Your task to perform on an android device: turn on bluetooth scan Image 0: 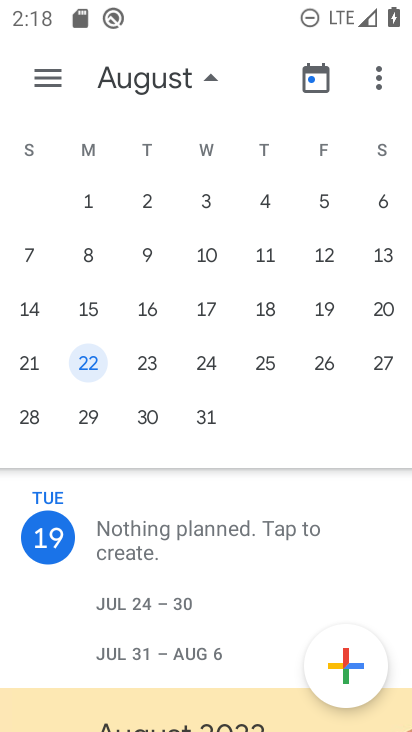
Step 0: press home button
Your task to perform on an android device: turn on bluetooth scan Image 1: 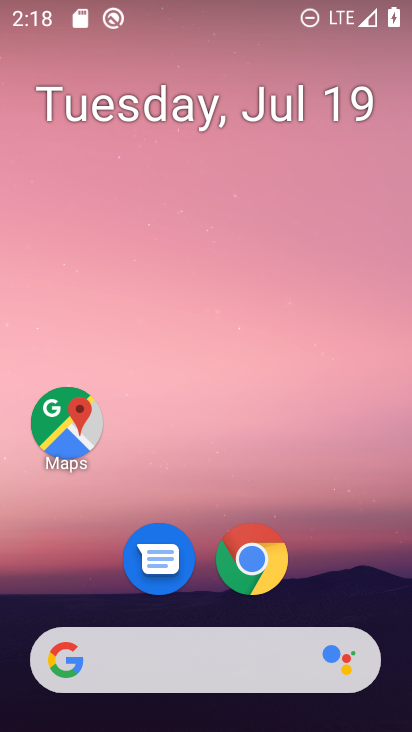
Step 1: drag from (151, 666) to (181, 74)
Your task to perform on an android device: turn on bluetooth scan Image 2: 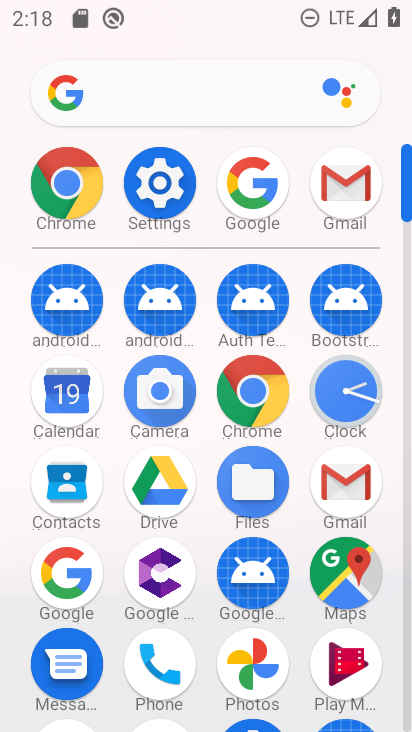
Step 2: click (175, 195)
Your task to perform on an android device: turn on bluetooth scan Image 3: 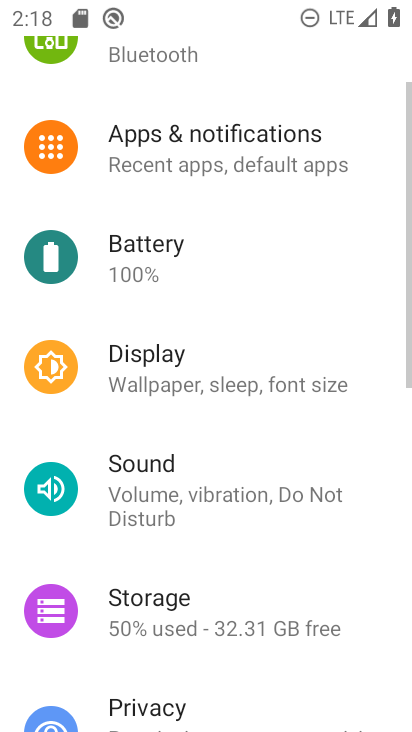
Step 3: drag from (185, 213) to (142, 545)
Your task to perform on an android device: turn on bluetooth scan Image 4: 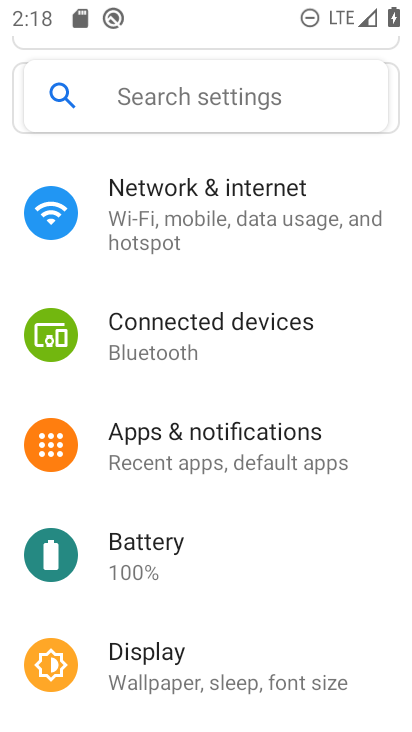
Step 4: click (181, 356)
Your task to perform on an android device: turn on bluetooth scan Image 5: 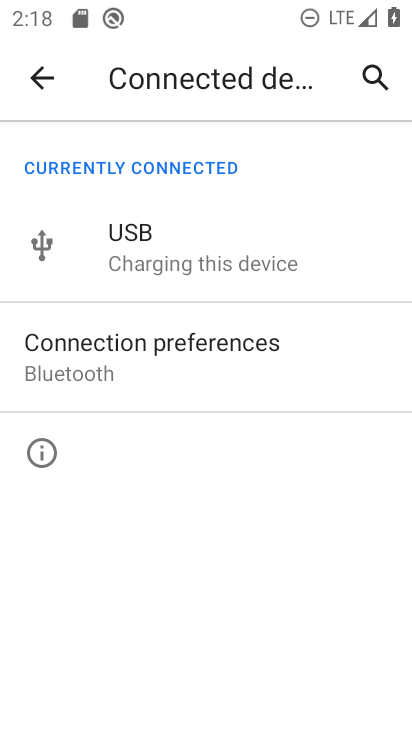
Step 5: click (182, 358)
Your task to perform on an android device: turn on bluetooth scan Image 6: 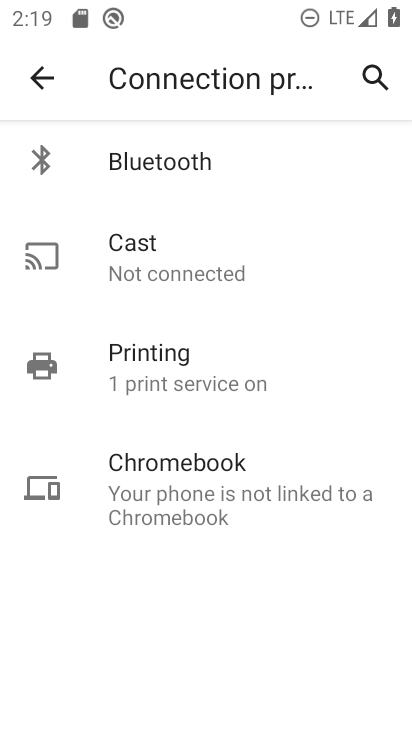
Step 6: click (165, 167)
Your task to perform on an android device: turn on bluetooth scan Image 7: 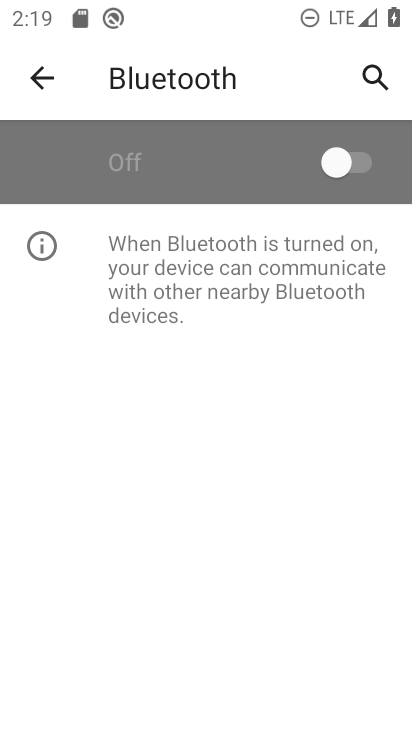
Step 7: click (297, 129)
Your task to perform on an android device: turn on bluetooth scan Image 8: 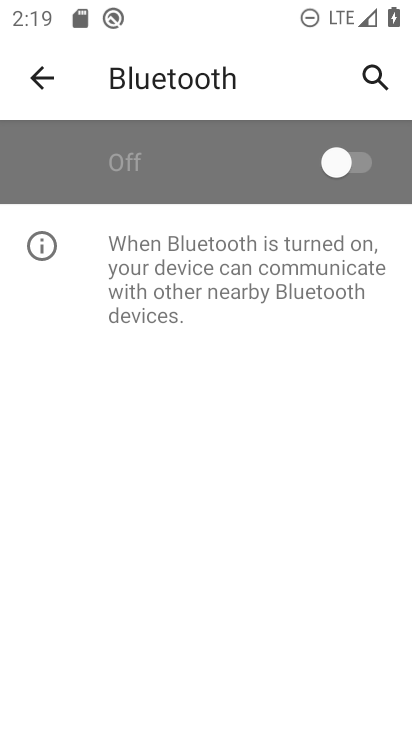
Step 8: click (295, 131)
Your task to perform on an android device: turn on bluetooth scan Image 9: 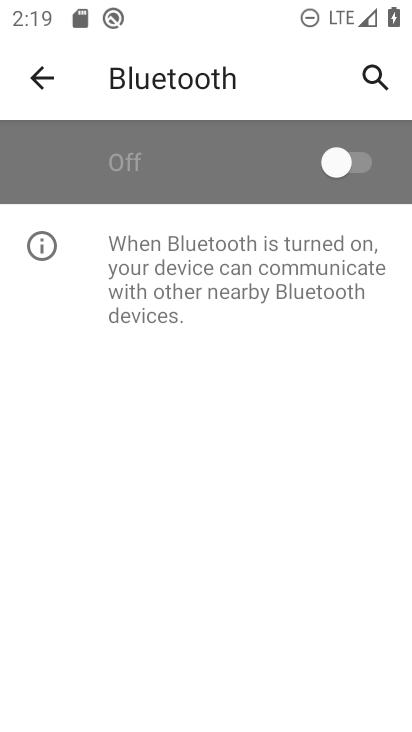
Step 9: task complete